Your task to perform on an android device: find photos in the google photos app Image 0: 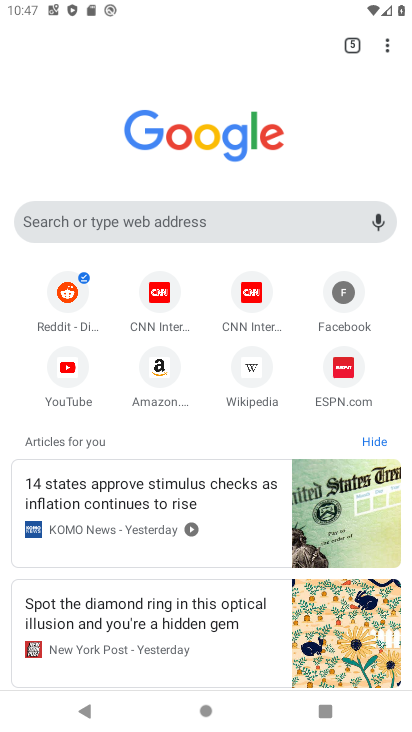
Step 0: press home button
Your task to perform on an android device: find photos in the google photos app Image 1: 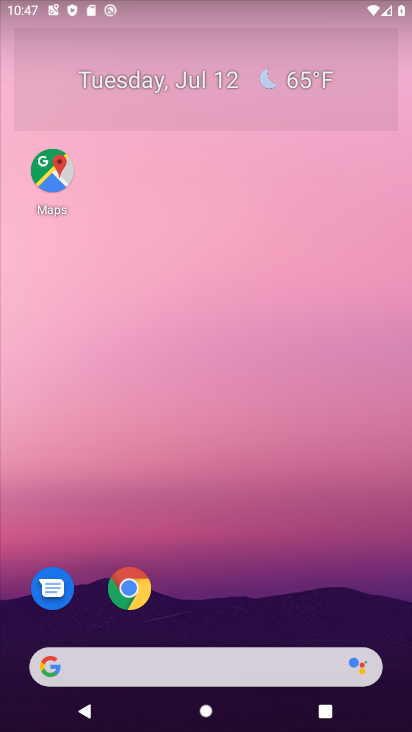
Step 1: drag from (16, 696) to (391, 248)
Your task to perform on an android device: find photos in the google photos app Image 2: 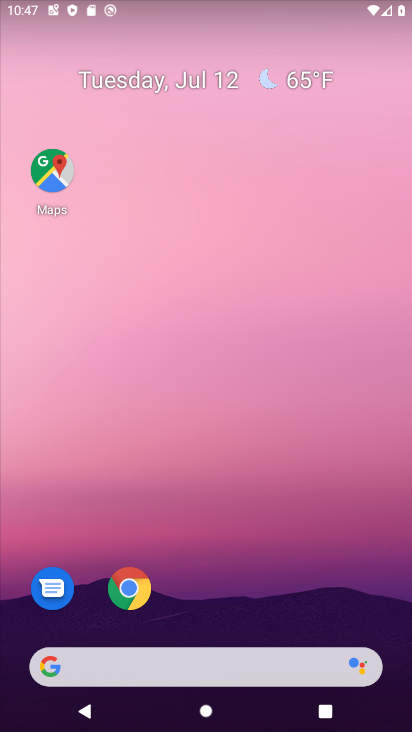
Step 2: click (206, 235)
Your task to perform on an android device: find photos in the google photos app Image 3: 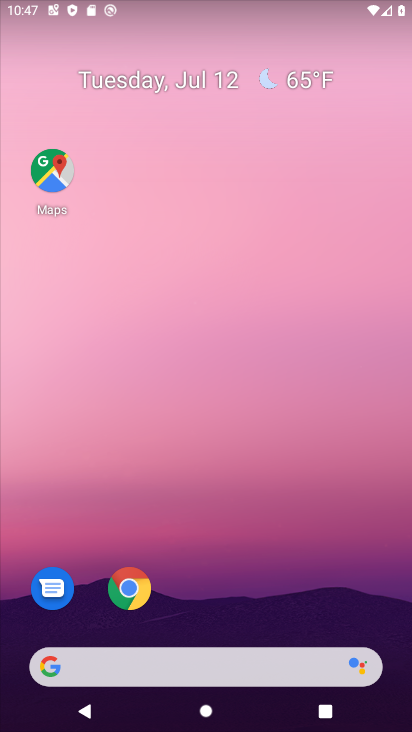
Step 3: drag from (25, 697) to (382, 41)
Your task to perform on an android device: find photos in the google photos app Image 4: 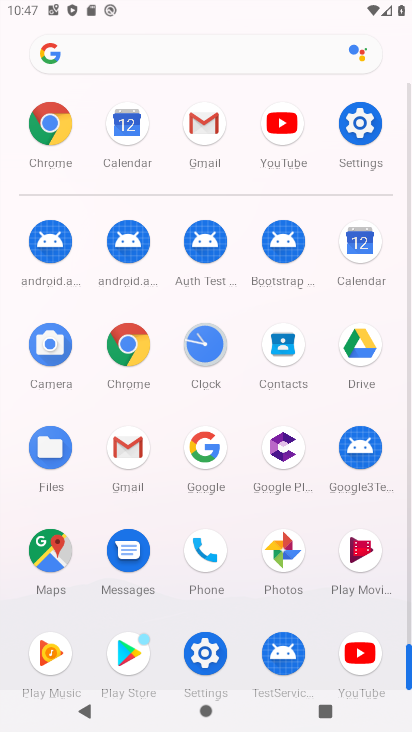
Step 4: click (293, 558)
Your task to perform on an android device: find photos in the google photos app Image 5: 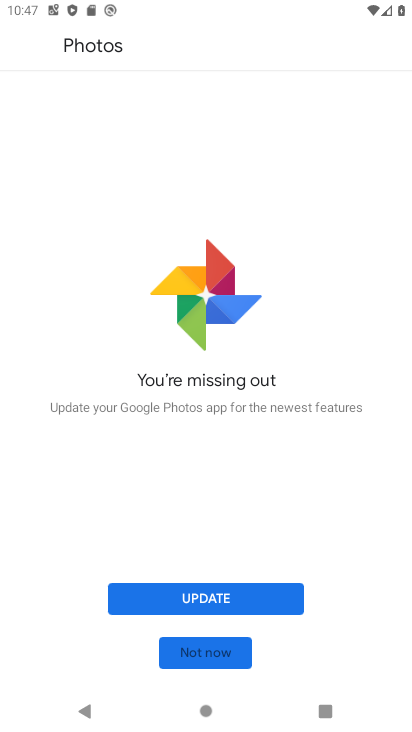
Step 5: click (186, 651)
Your task to perform on an android device: find photos in the google photos app Image 6: 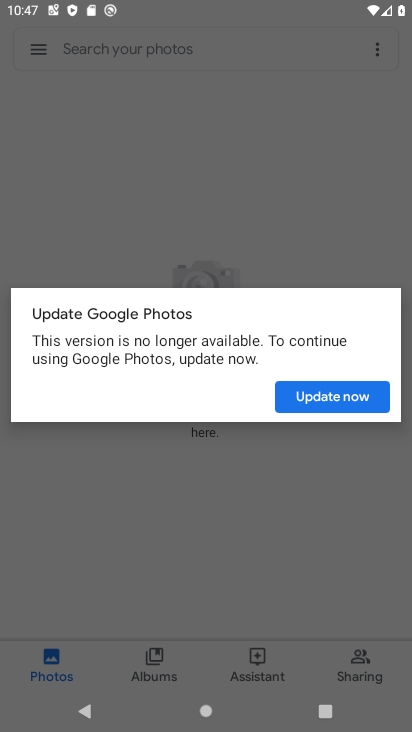
Step 6: click (335, 389)
Your task to perform on an android device: find photos in the google photos app Image 7: 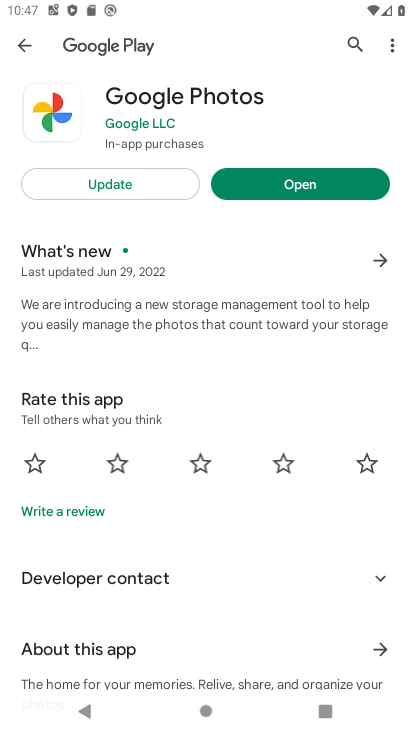
Step 7: click (310, 180)
Your task to perform on an android device: find photos in the google photos app Image 8: 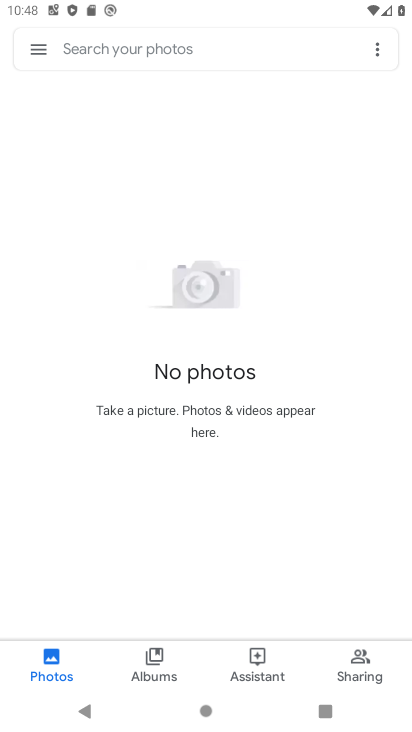
Step 8: task complete